Your task to perform on an android device: Open location settings Image 0: 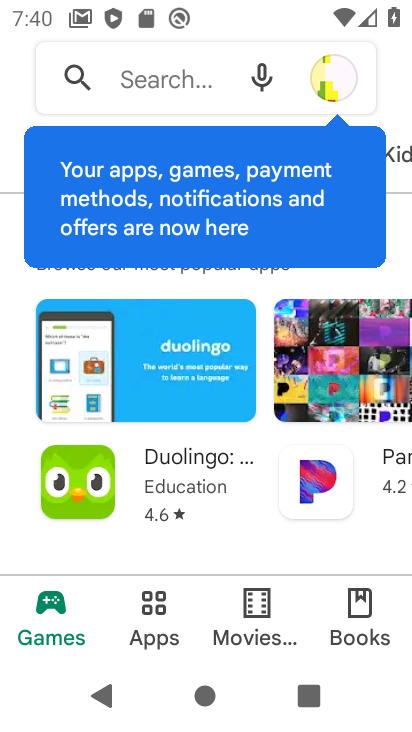
Step 0: press home button
Your task to perform on an android device: Open location settings Image 1: 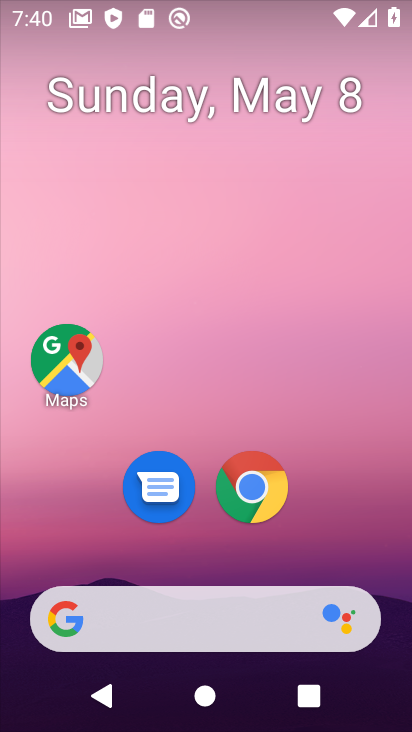
Step 1: drag from (320, 543) to (301, 8)
Your task to perform on an android device: Open location settings Image 2: 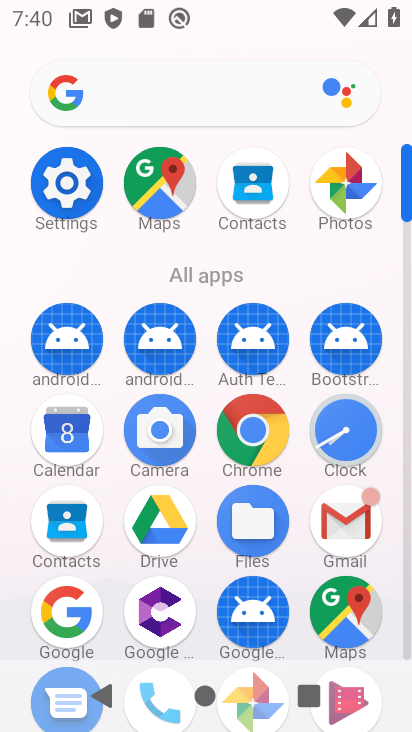
Step 2: click (42, 191)
Your task to perform on an android device: Open location settings Image 3: 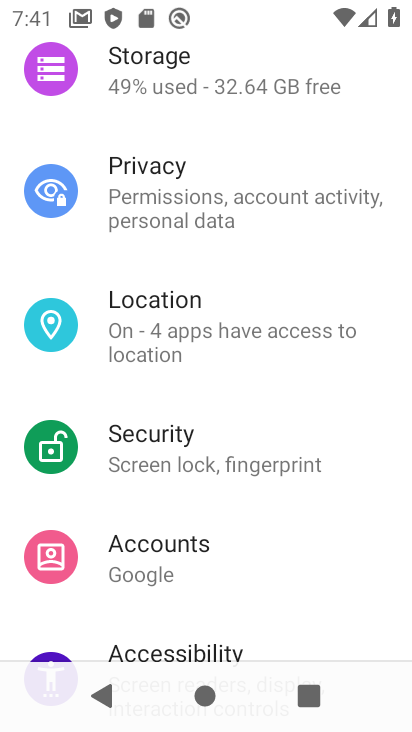
Step 3: click (165, 344)
Your task to perform on an android device: Open location settings Image 4: 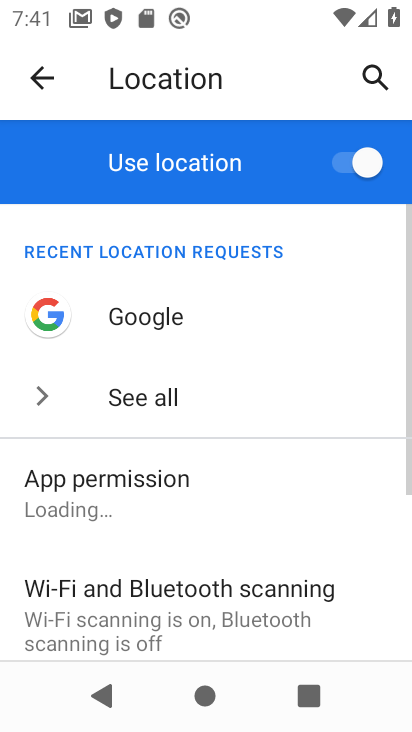
Step 4: drag from (165, 581) to (207, 420)
Your task to perform on an android device: Open location settings Image 5: 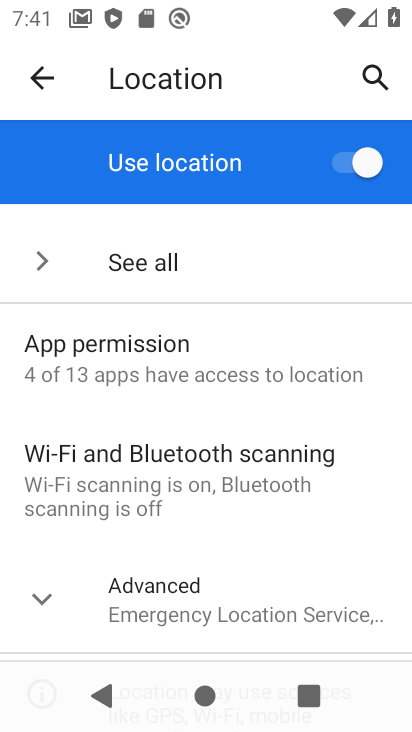
Step 5: click (135, 568)
Your task to perform on an android device: Open location settings Image 6: 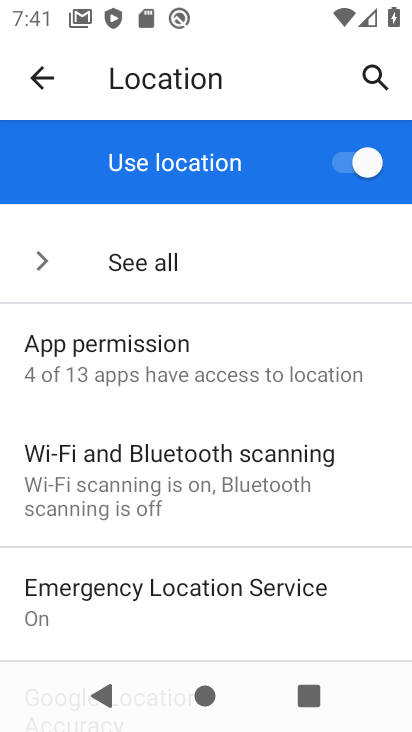
Step 6: task complete